Your task to perform on an android device: Go to calendar. Show me events next week Image 0: 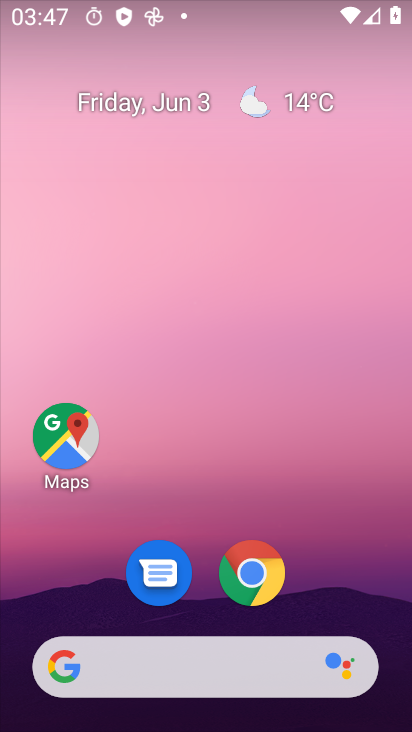
Step 0: drag from (353, 649) to (362, 27)
Your task to perform on an android device: Go to calendar. Show me events next week Image 1: 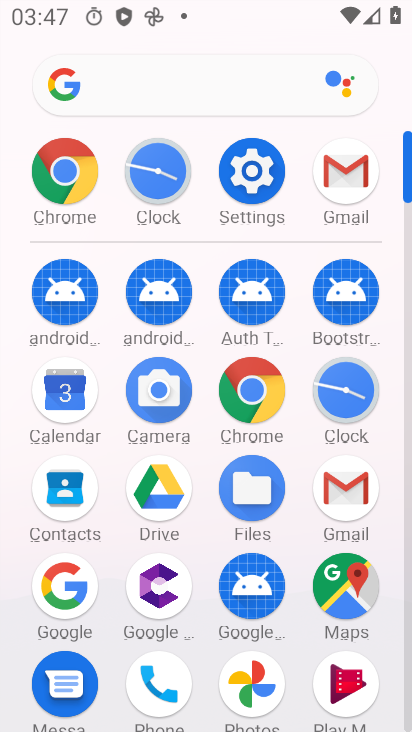
Step 1: click (85, 392)
Your task to perform on an android device: Go to calendar. Show me events next week Image 2: 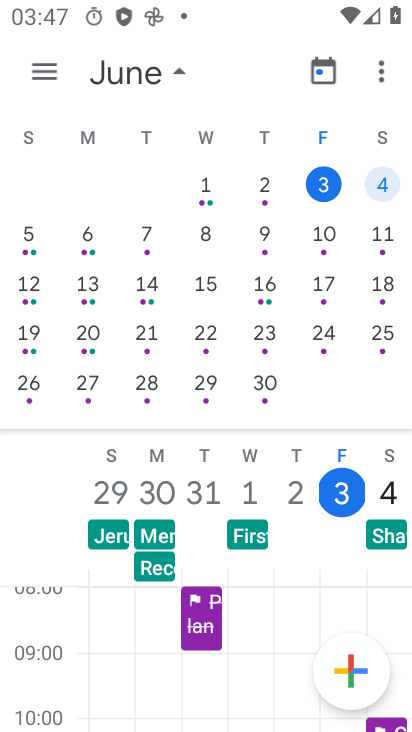
Step 2: click (377, 239)
Your task to perform on an android device: Go to calendar. Show me events next week Image 3: 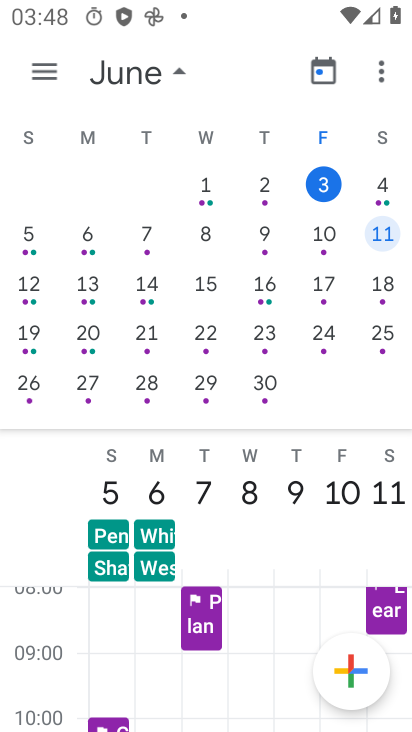
Step 3: click (207, 242)
Your task to perform on an android device: Go to calendar. Show me events next week Image 4: 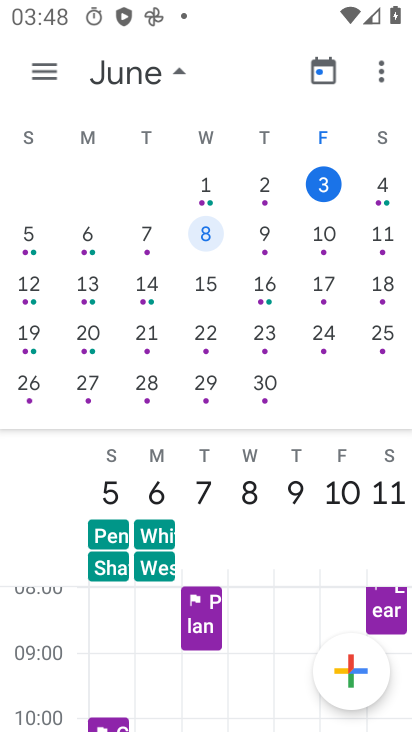
Step 4: task complete